Your task to perform on an android device: turn on showing notifications on the lock screen Image 0: 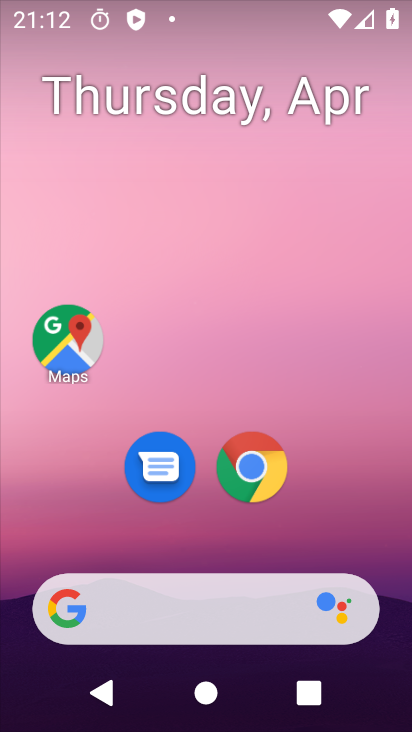
Step 0: drag from (198, 570) to (162, 5)
Your task to perform on an android device: turn on showing notifications on the lock screen Image 1: 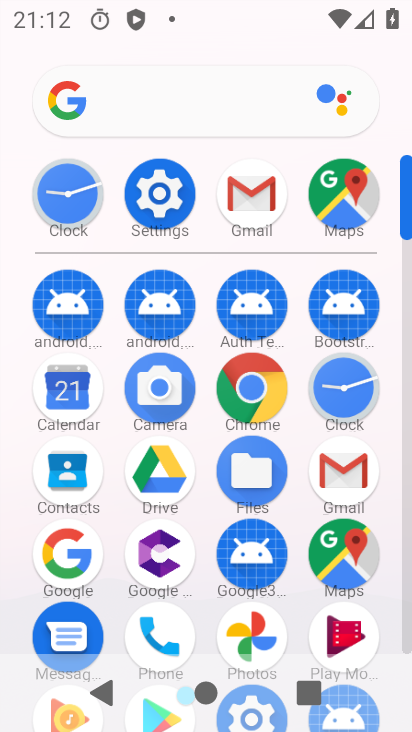
Step 1: click (144, 198)
Your task to perform on an android device: turn on showing notifications on the lock screen Image 2: 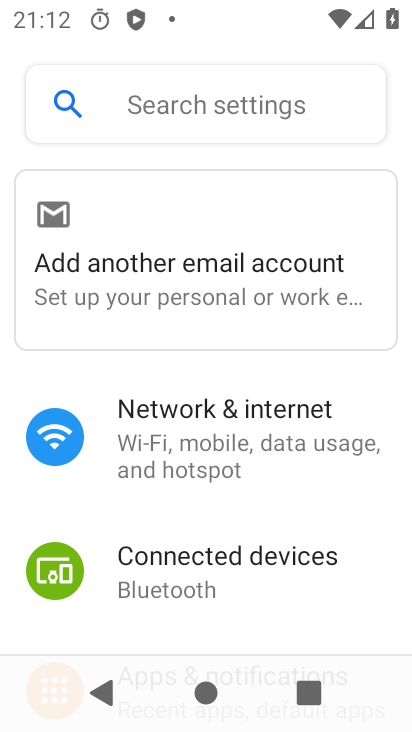
Step 2: drag from (179, 517) to (147, 66)
Your task to perform on an android device: turn on showing notifications on the lock screen Image 3: 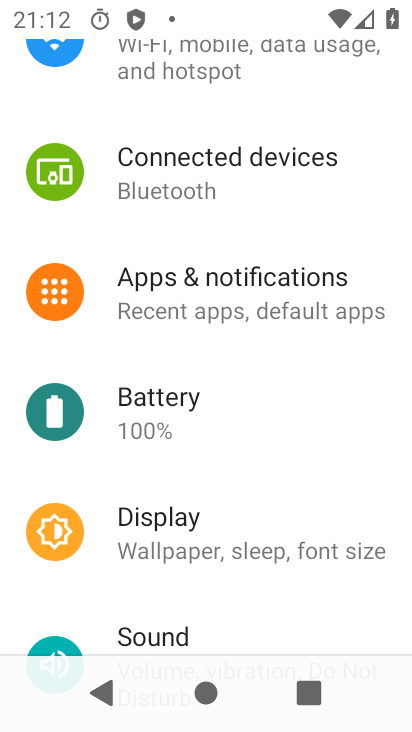
Step 3: drag from (206, 498) to (179, 360)
Your task to perform on an android device: turn on showing notifications on the lock screen Image 4: 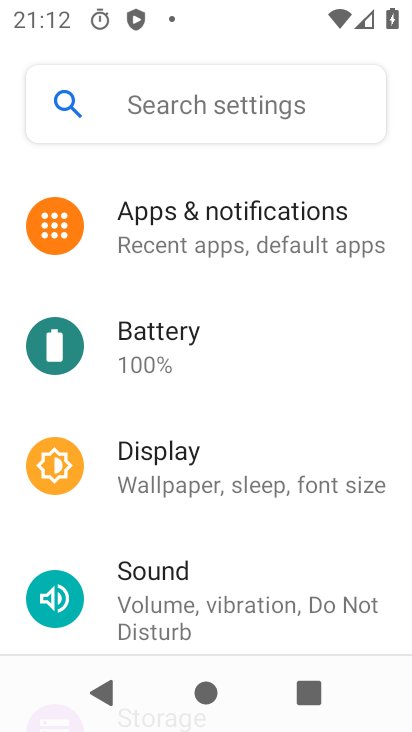
Step 4: click (175, 240)
Your task to perform on an android device: turn on showing notifications on the lock screen Image 5: 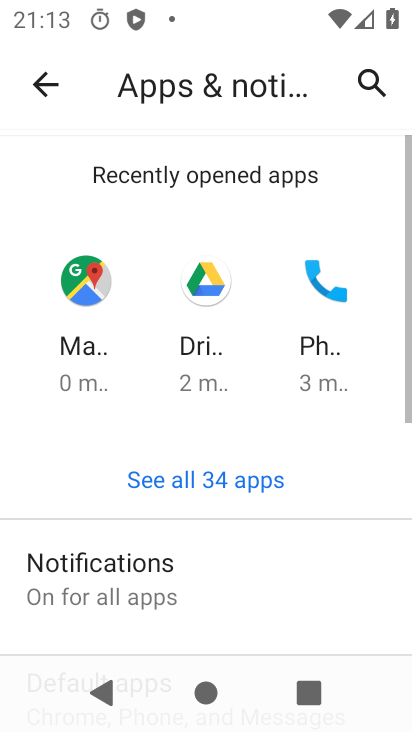
Step 5: click (120, 552)
Your task to perform on an android device: turn on showing notifications on the lock screen Image 6: 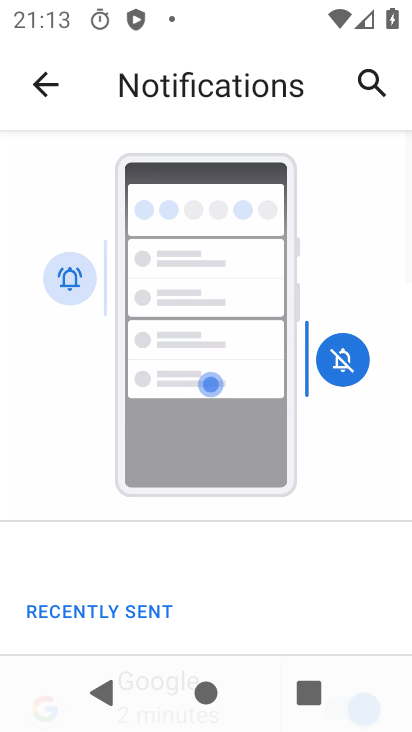
Step 6: drag from (209, 578) to (154, 33)
Your task to perform on an android device: turn on showing notifications on the lock screen Image 7: 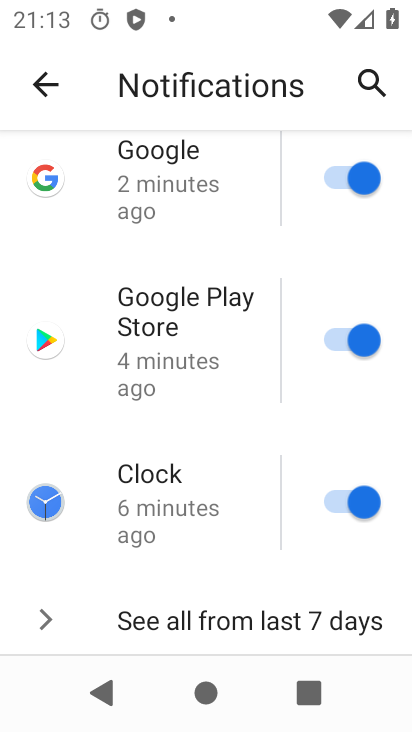
Step 7: drag from (226, 588) to (172, 138)
Your task to perform on an android device: turn on showing notifications on the lock screen Image 8: 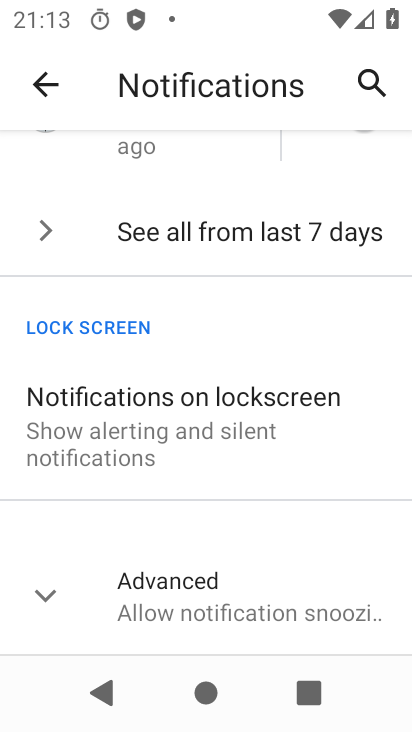
Step 8: click (173, 411)
Your task to perform on an android device: turn on showing notifications on the lock screen Image 9: 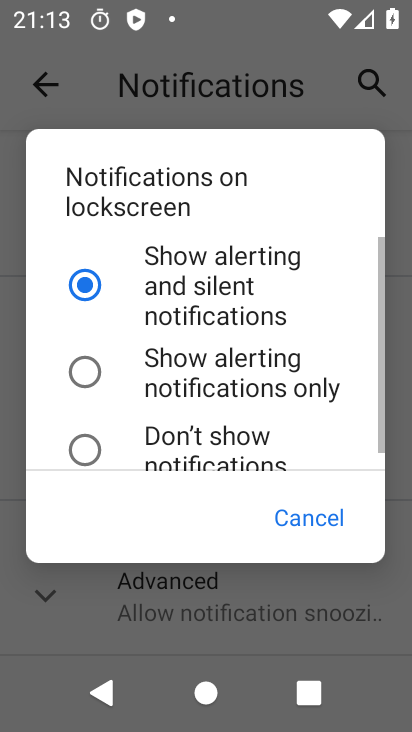
Step 9: click (228, 275)
Your task to perform on an android device: turn on showing notifications on the lock screen Image 10: 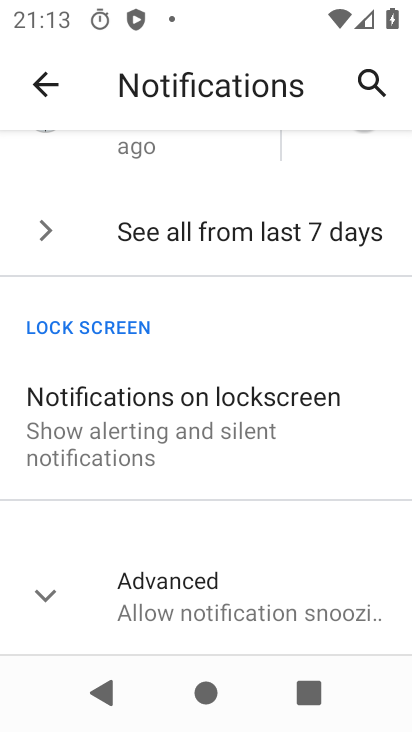
Step 10: task complete